Your task to perform on an android device: toggle notification dots Image 0: 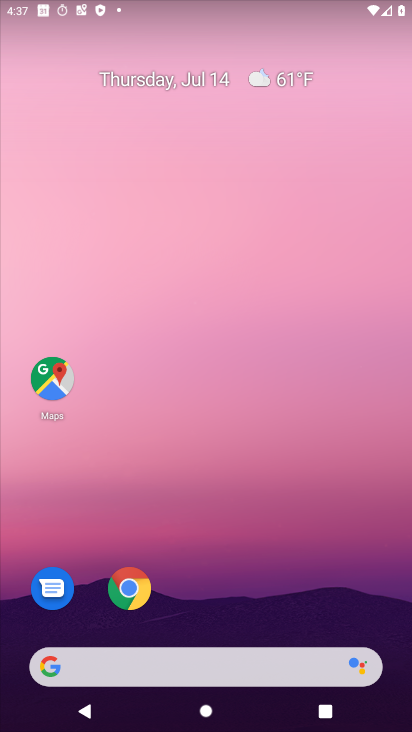
Step 0: drag from (170, 673) to (254, 188)
Your task to perform on an android device: toggle notification dots Image 1: 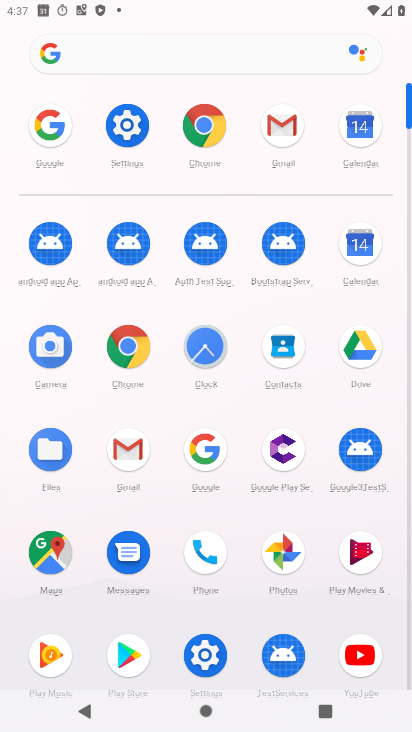
Step 1: click (128, 127)
Your task to perform on an android device: toggle notification dots Image 2: 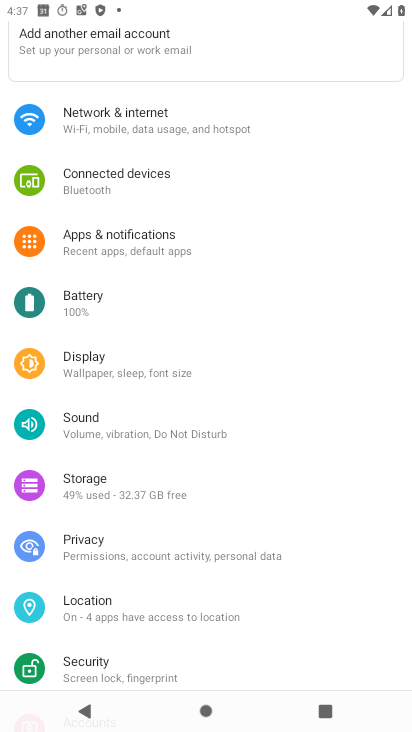
Step 2: click (112, 239)
Your task to perform on an android device: toggle notification dots Image 3: 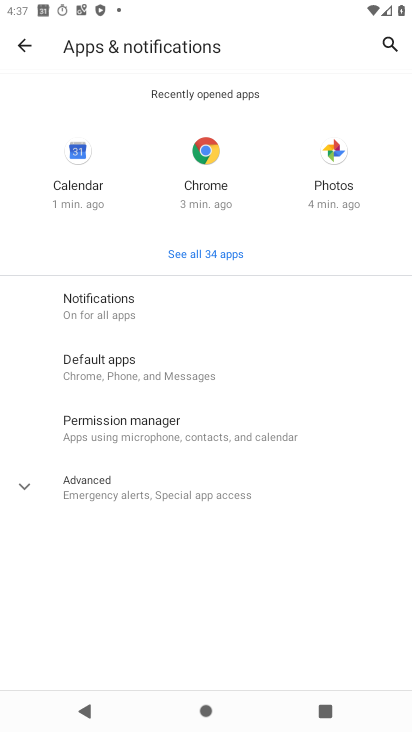
Step 3: click (91, 310)
Your task to perform on an android device: toggle notification dots Image 4: 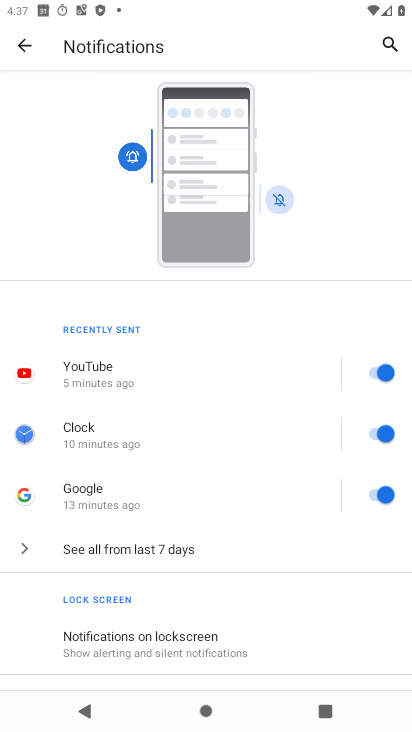
Step 4: drag from (172, 606) to (265, 435)
Your task to perform on an android device: toggle notification dots Image 5: 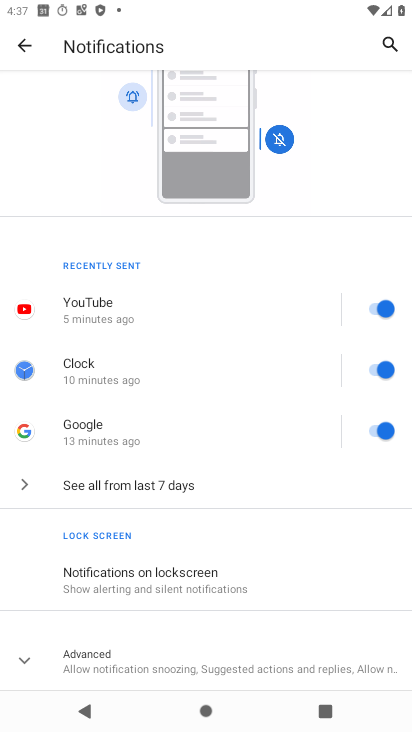
Step 5: click (180, 664)
Your task to perform on an android device: toggle notification dots Image 6: 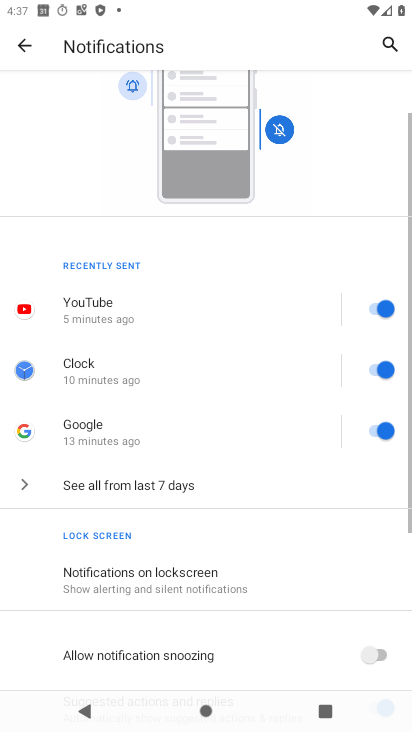
Step 6: drag from (180, 626) to (221, 518)
Your task to perform on an android device: toggle notification dots Image 7: 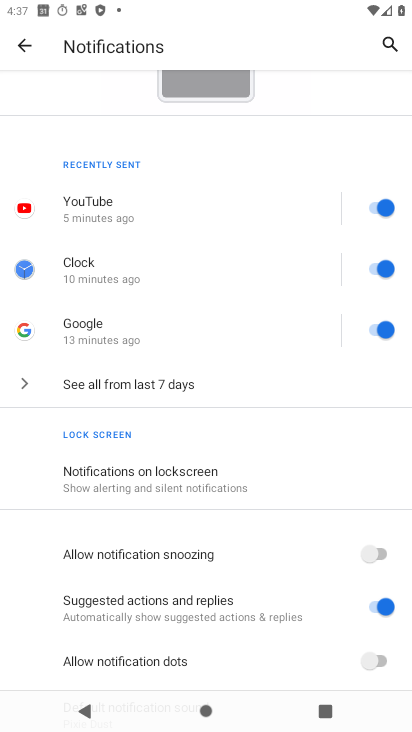
Step 7: drag from (144, 618) to (197, 507)
Your task to perform on an android device: toggle notification dots Image 8: 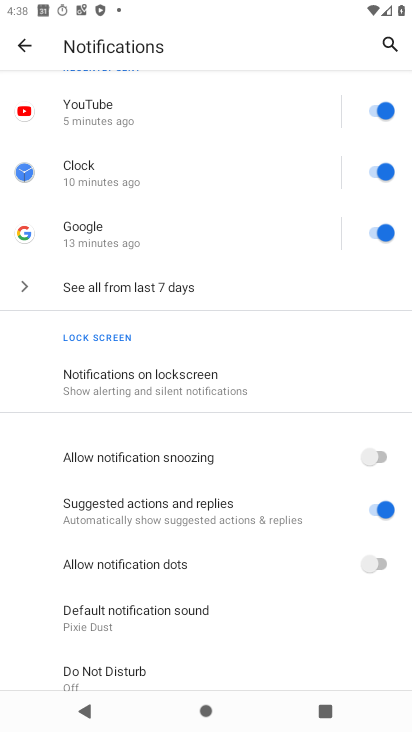
Step 8: click (379, 568)
Your task to perform on an android device: toggle notification dots Image 9: 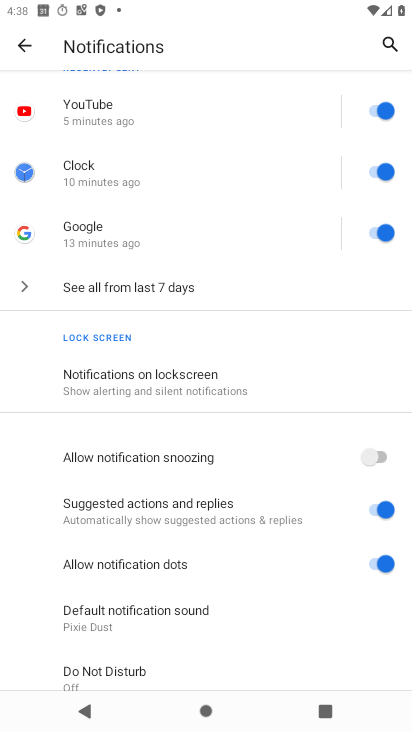
Step 9: task complete